Your task to perform on an android device: Open the map Image 0: 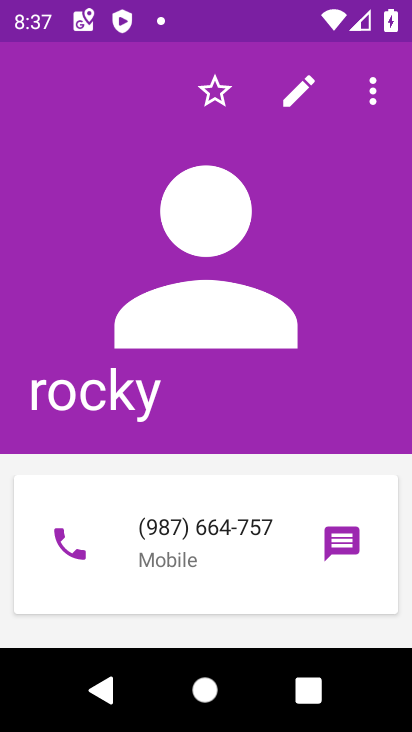
Step 0: press home button
Your task to perform on an android device: Open the map Image 1: 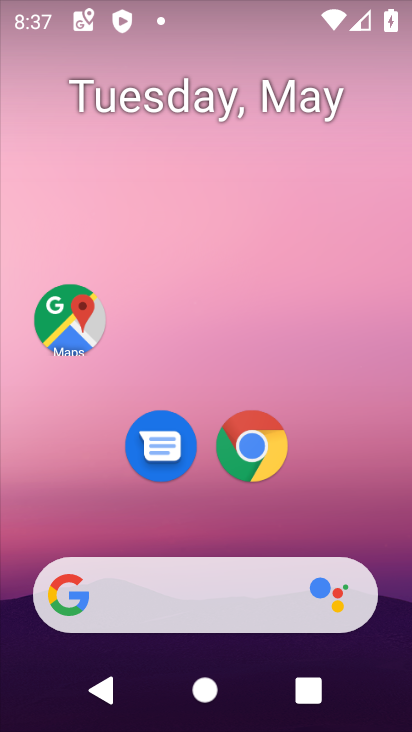
Step 1: click (75, 311)
Your task to perform on an android device: Open the map Image 2: 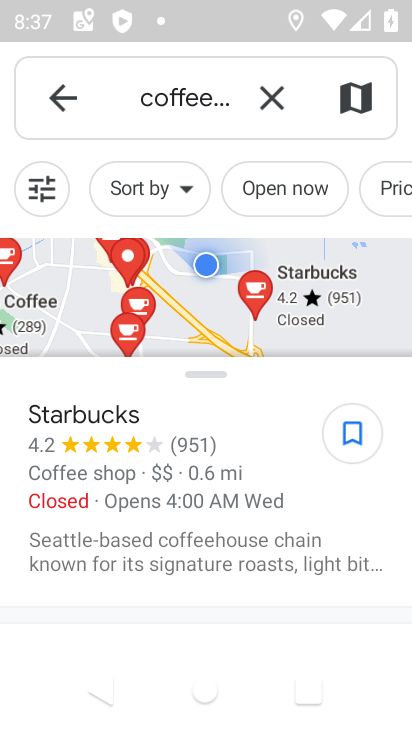
Step 2: task complete